Your task to perform on an android device: Open battery settings Image 0: 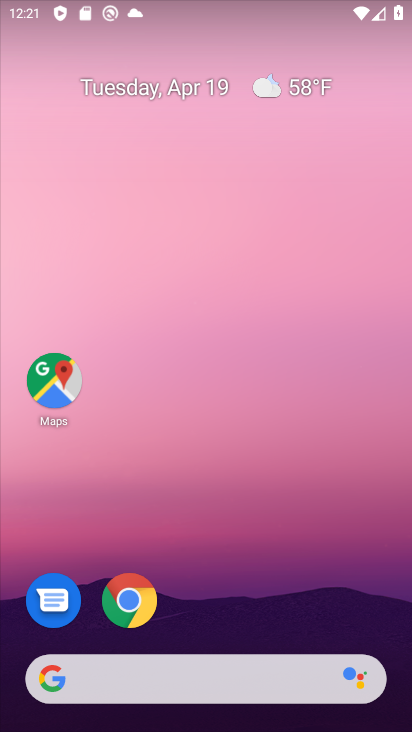
Step 0: drag from (254, 700) to (228, 172)
Your task to perform on an android device: Open battery settings Image 1: 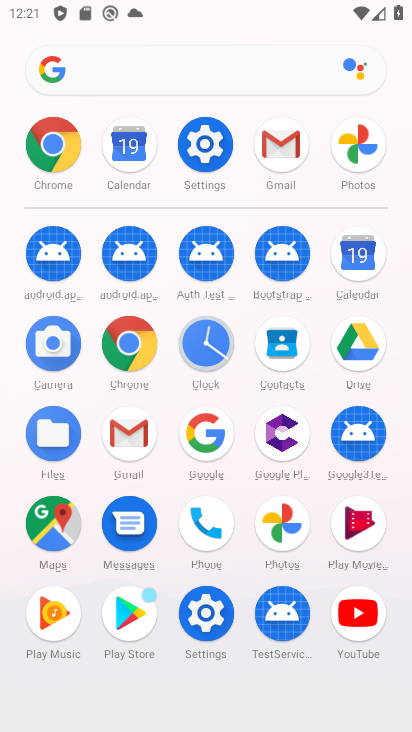
Step 1: click (206, 175)
Your task to perform on an android device: Open battery settings Image 2: 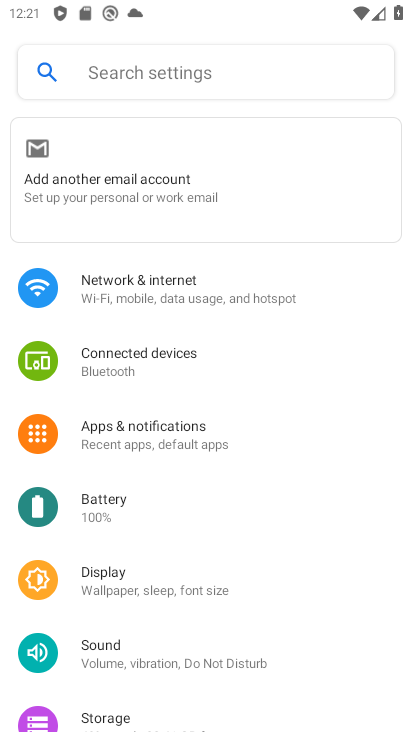
Step 2: click (136, 76)
Your task to perform on an android device: Open battery settings Image 3: 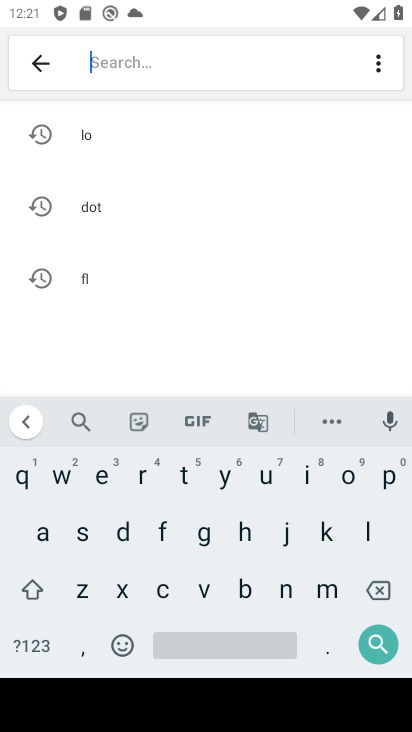
Step 3: click (245, 582)
Your task to perform on an android device: Open battery settings Image 4: 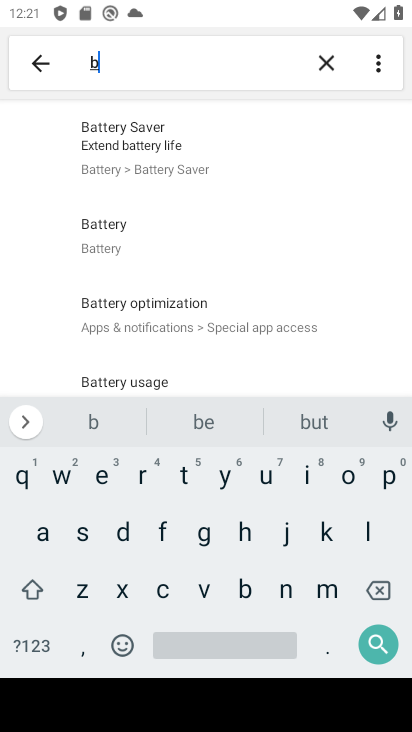
Step 4: click (32, 542)
Your task to perform on an android device: Open battery settings Image 5: 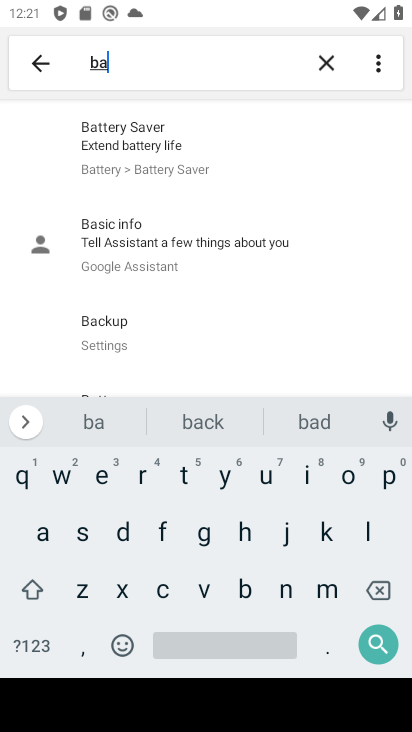
Step 5: click (383, 588)
Your task to perform on an android device: Open battery settings Image 6: 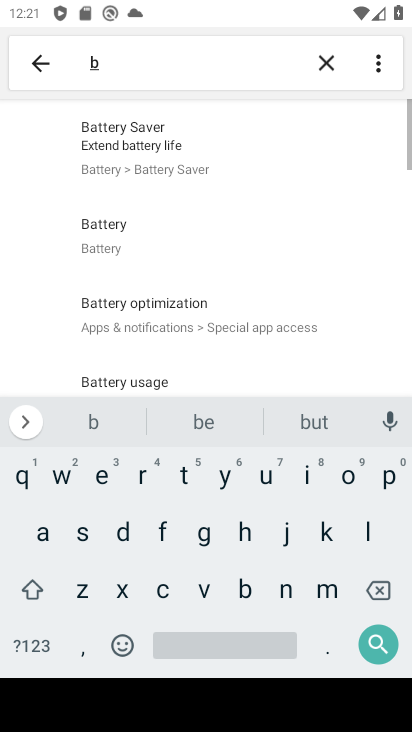
Step 6: click (128, 225)
Your task to perform on an android device: Open battery settings Image 7: 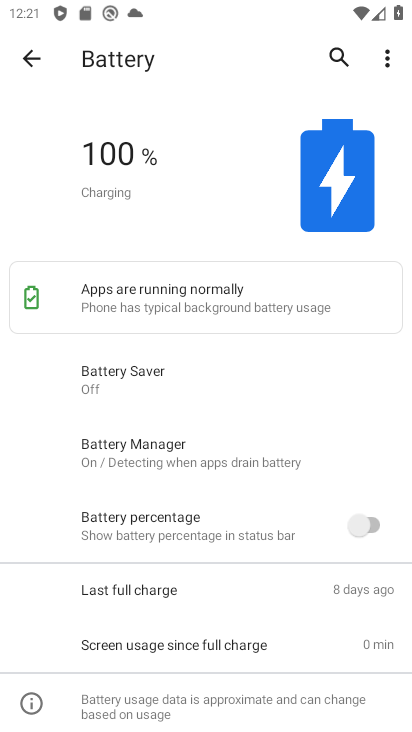
Step 7: task complete